Your task to perform on an android device: Open Chrome and go to the settings page Image 0: 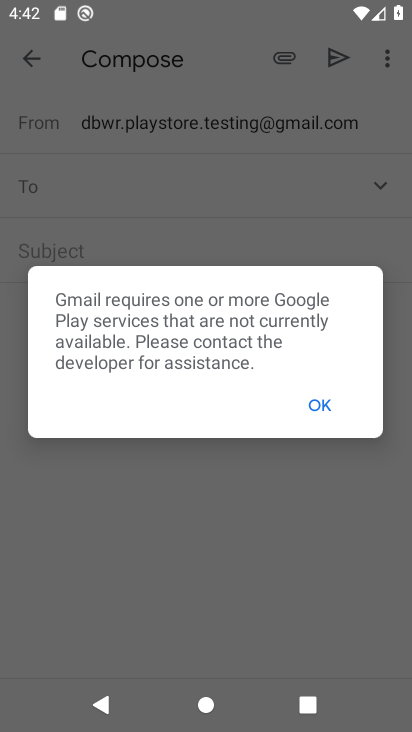
Step 0: drag from (269, 516) to (230, 159)
Your task to perform on an android device: Open Chrome and go to the settings page Image 1: 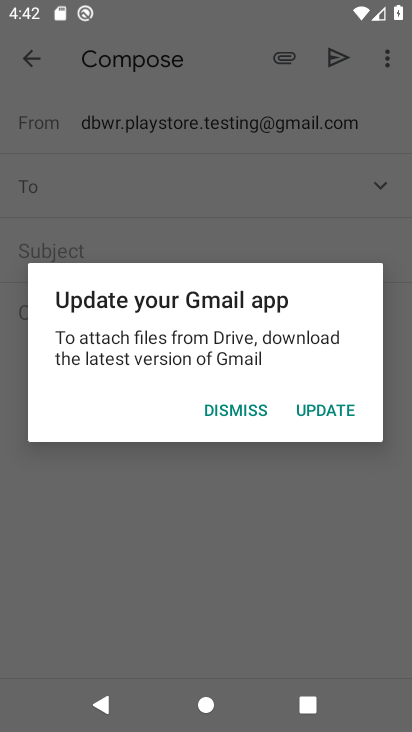
Step 1: press back button
Your task to perform on an android device: Open Chrome and go to the settings page Image 2: 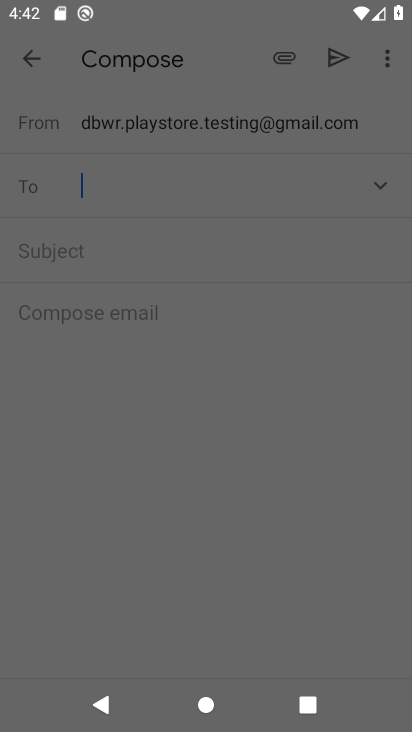
Step 2: press back button
Your task to perform on an android device: Open Chrome and go to the settings page Image 3: 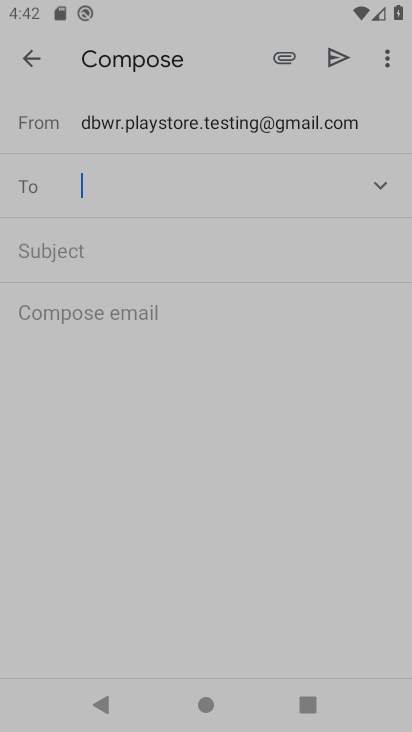
Step 3: press home button
Your task to perform on an android device: Open Chrome and go to the settings page Image 4: 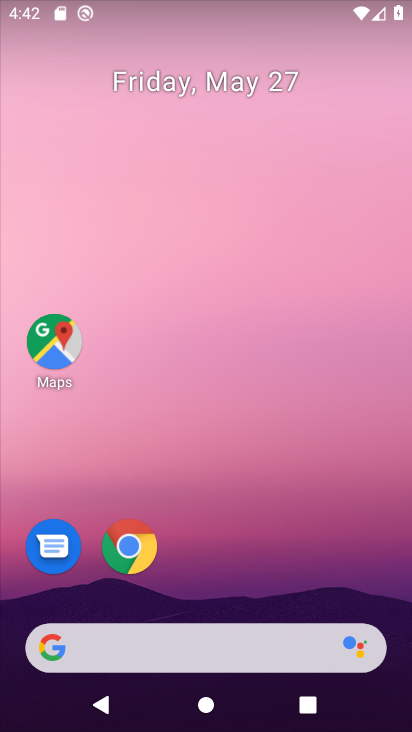
Step 4: drag from (265, 531) to (215, 16)
Your task to perform on an android device: Open Chrome and go to the settings page Image 5: 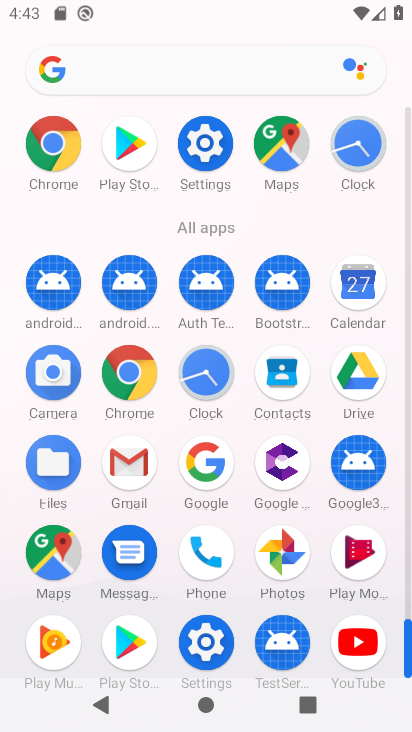
Step 5: drag from (10, 502) to (33, 204)
Your task to perform on an android device: Open Chrome and go to the settings page Image 6: 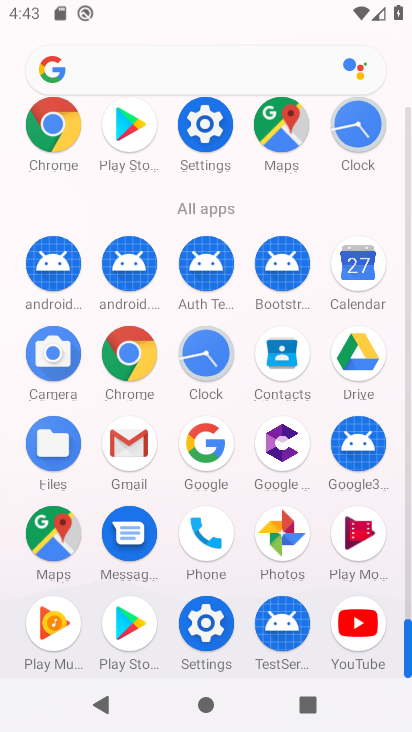
Step 6: click (205, 121)
Your task to perform on an android device: Open Chrome and go to the settings page Image 7: 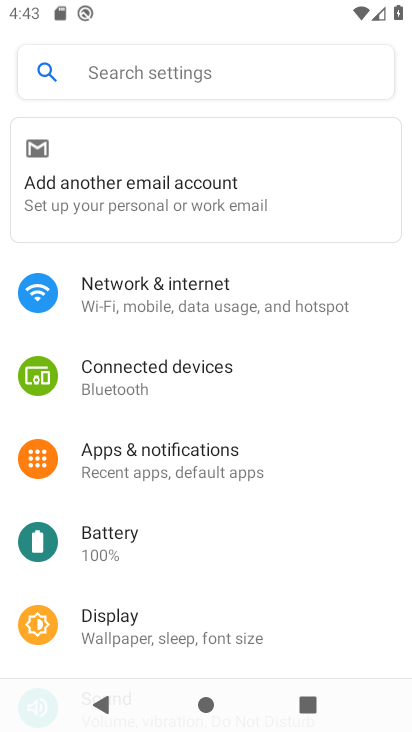
Step 7: press back button
Your task to perform on an android device: Open Chrome and go to the settings page Image 8: 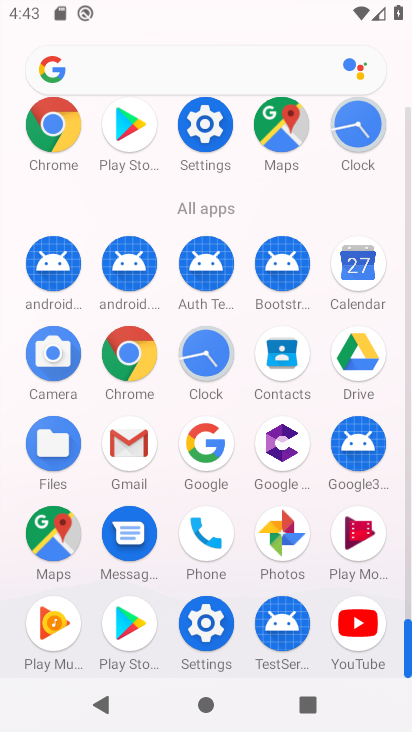
Step 8: click (123, 350)
Your task to perform on an android device: Open Chrome and go to the settings page Image 9: 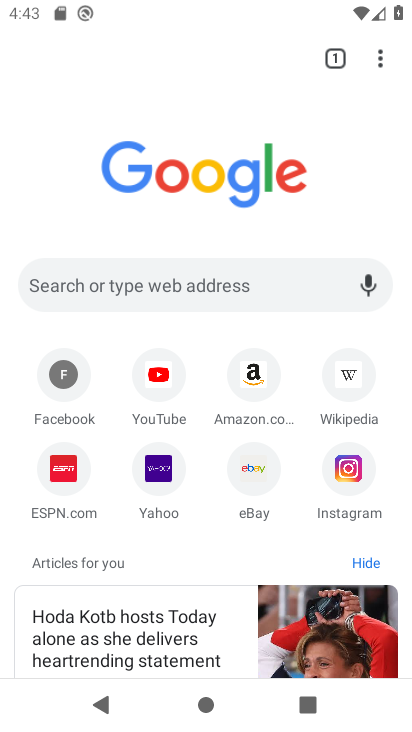
Step 9: task complete